Your task to perform on an android device: toggle airplane mode Image 0: 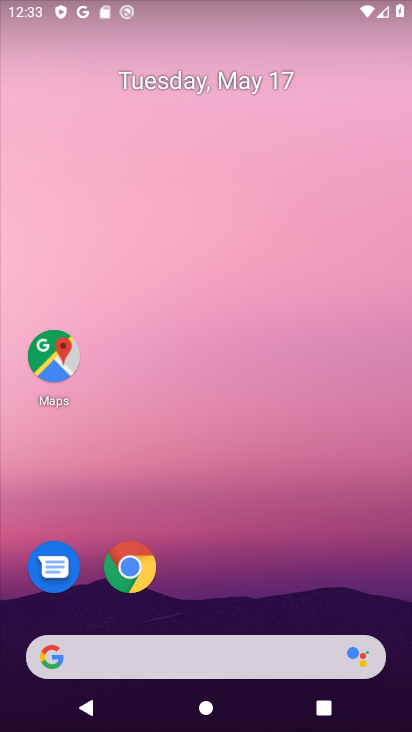
Step 0: drag from (359, 6) to (305, 388)
Your task to perform on an android device: toggle airplane mode Image 1: 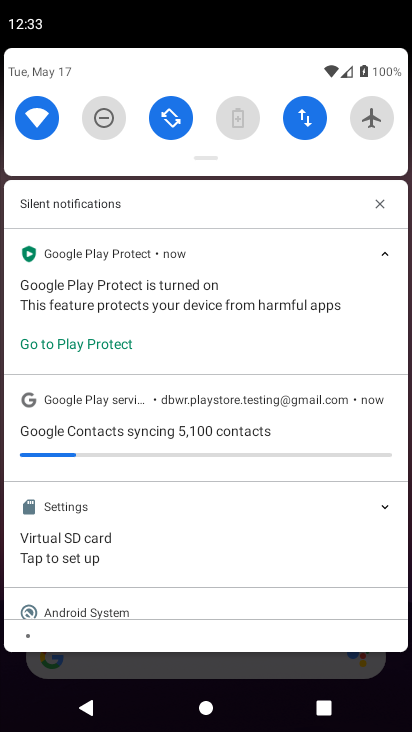
Step 1: click (373, 117)
Your task to perform on an android device: toggle airplane mode Image 2: 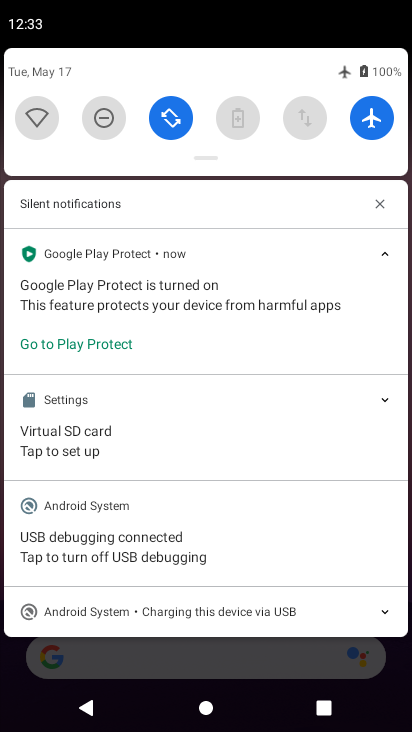
Step 2: task complete